Your task to perform on an android device: check data usage Image 0: 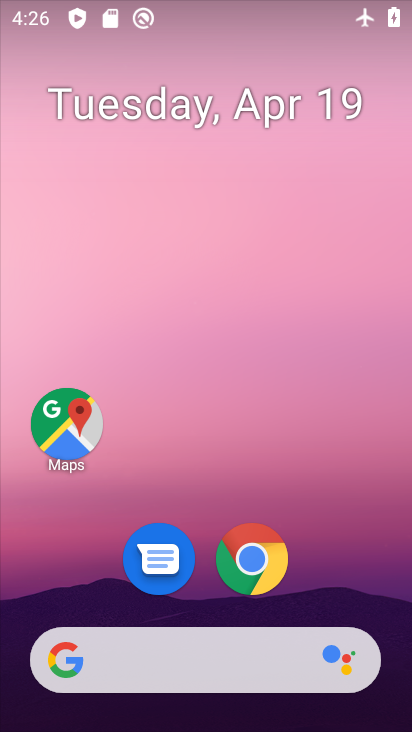
Step 0: drag from (347, 619) to (203, 96)
Your task to perform on an android device: check data usage Image 1: 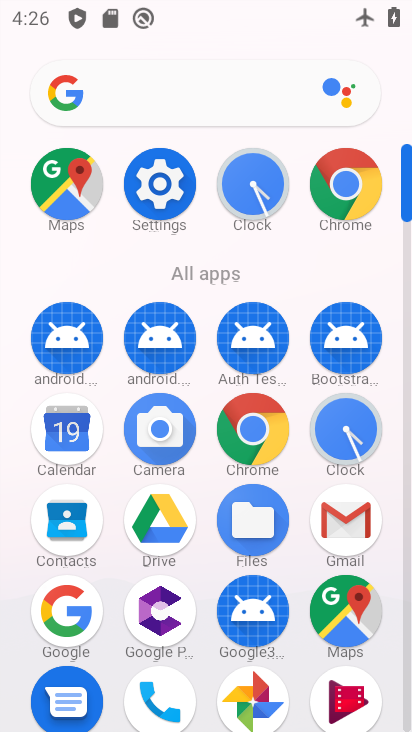
Step 1: click (170, 185)
Your task to perform on an android device: check data usage Image 2: 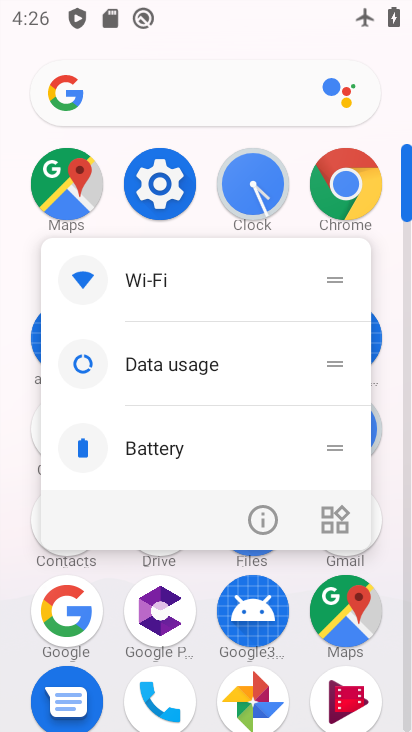
Step 2: click (170, 185)
Your task to perform on an android device: check data usage Image 3: 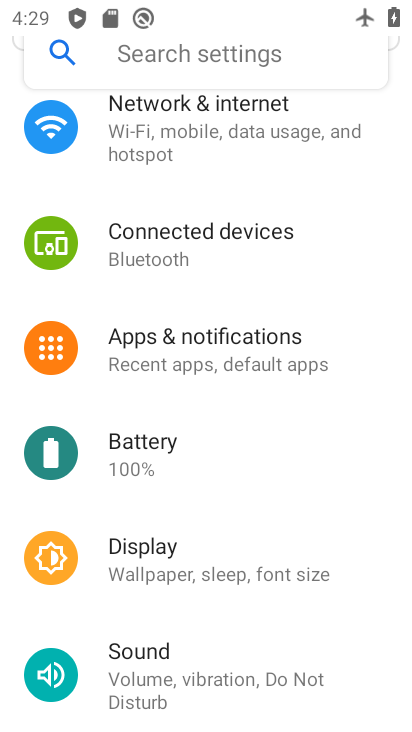
Step 3: click (157, 160)
Your task to perform on an android device: check data usage Image 4: 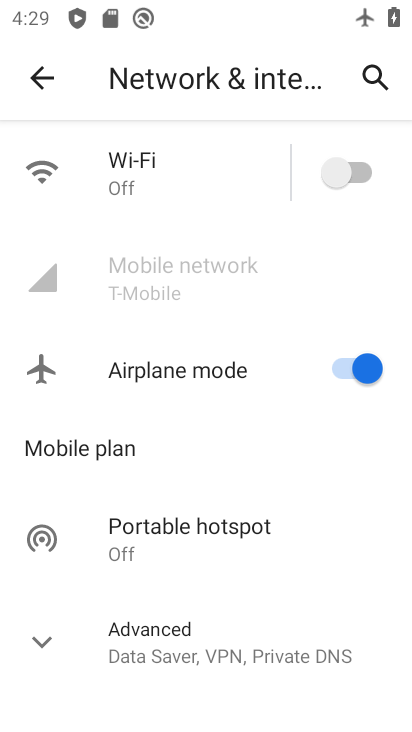
Step 4: click (380, 359)
Your task to perform on an android device: check data usage Image 5: 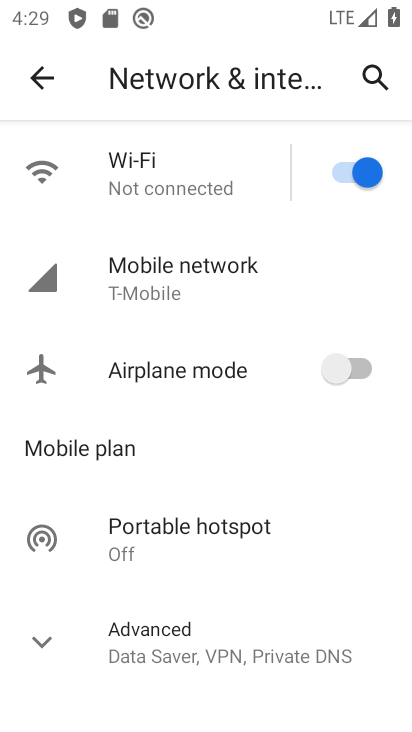
Step 5: click (314, 287)
Your task to perform on an android device: check data usage Image 6: 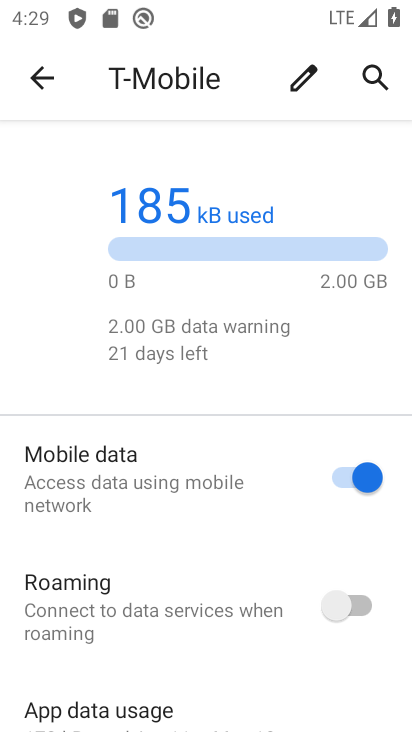
Step 6: task complete